Your task to perform on an android device: add a contact Image 0: 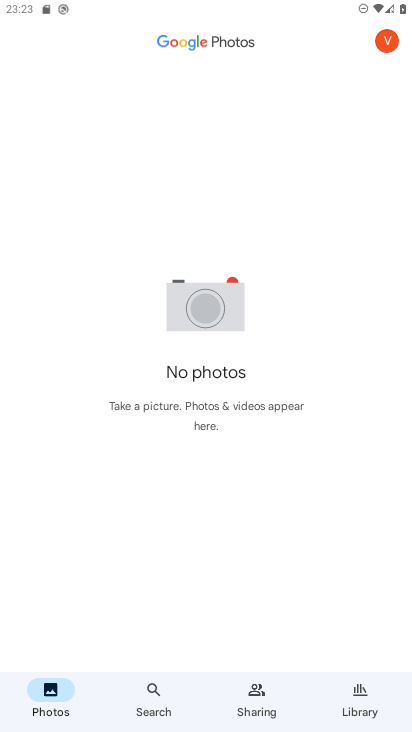
Step 0: press home button
Your task to perform on an android device: add a contact Image 1: 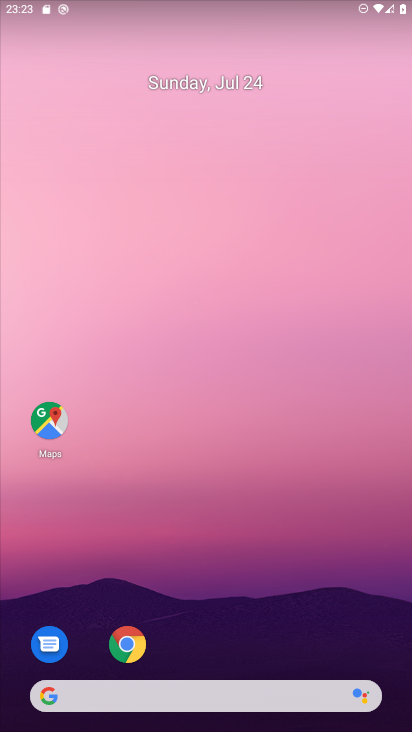
Step 1: drag from (369, 640) to (317, 53)
Your task to perform on an android device: add a contact Image 2: 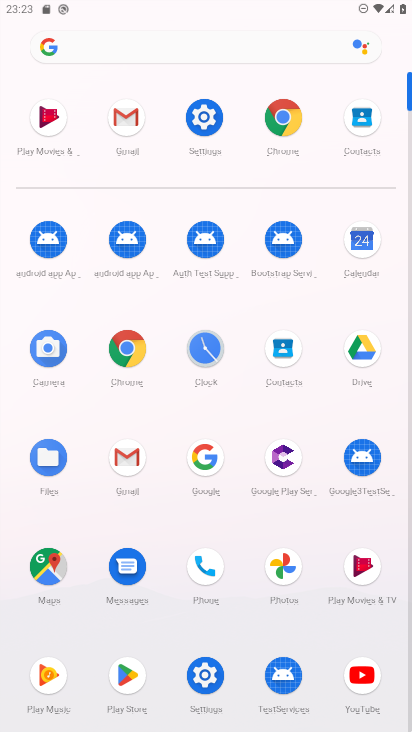
Step 2: click (283, 349)
Your task to perform on an android device: add a contact Image 3: 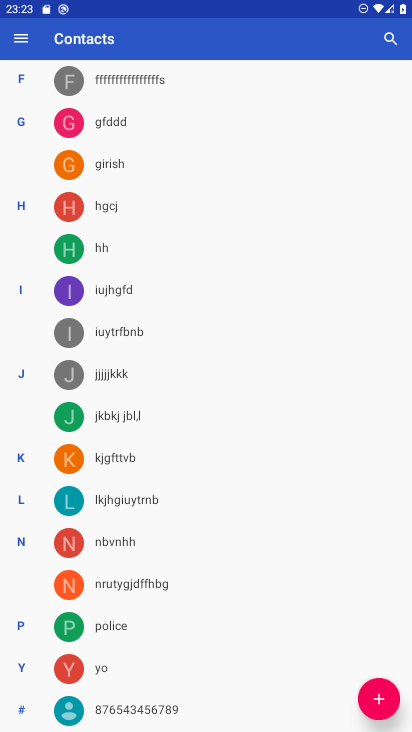
Step 3: click (379, 699)
Your task to perform on an android device: add a contact Image 4: 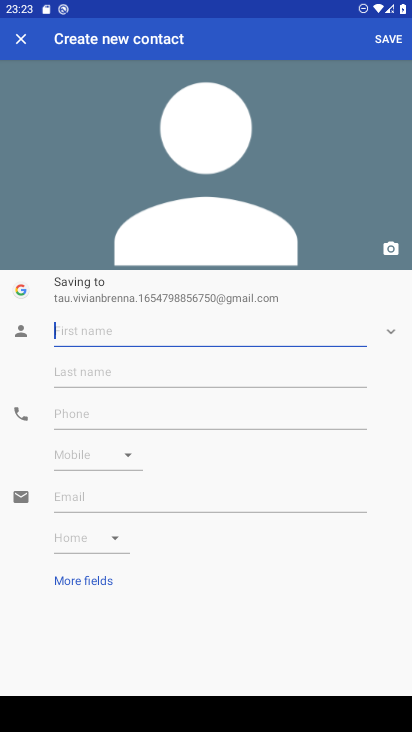
Step 4: type "mmmbbghgoyt"
Your task to perform on an android device: add a contact Image 5: 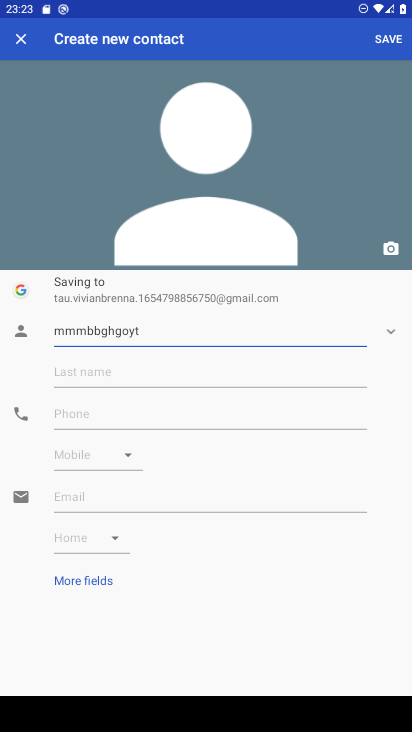
Step 5: click (82, 415)
Your task to perform on an android device: add a contact Image 6: 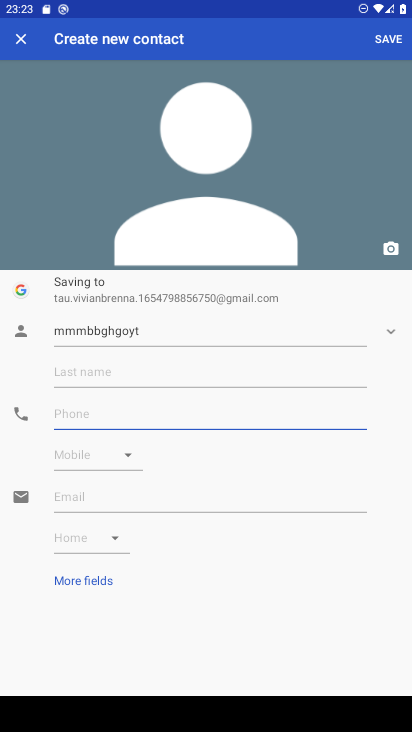
Step 6: type "07654335567"
Your task to perform on an android device: add a contact Image 7: 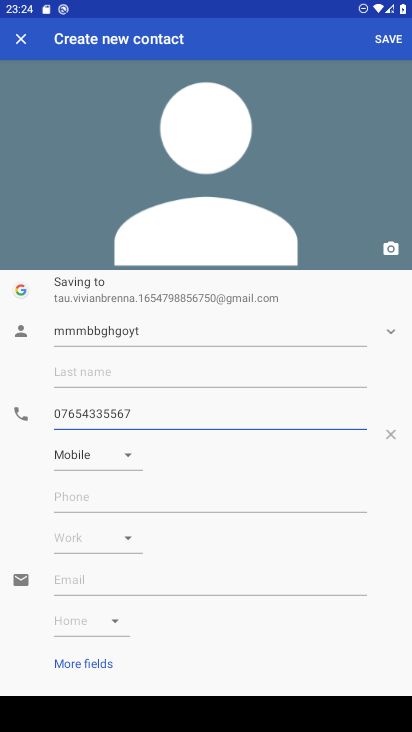
Step 7: click (385, 38)
Your task to perform on an android device: add a contact Image 8: 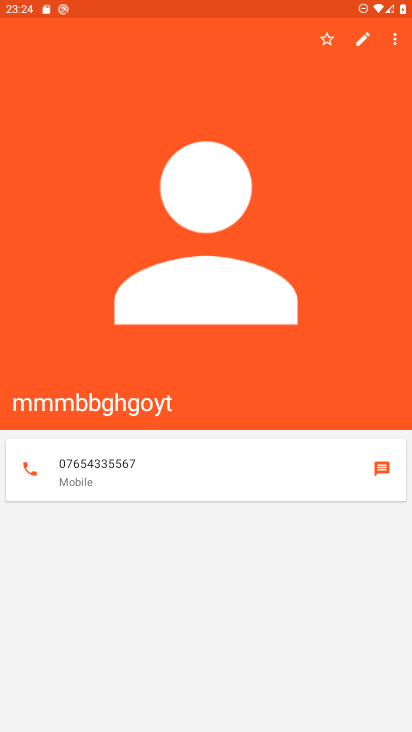
Step 8: task complete